Your task to perform on an android device: Open Google Chrome and click the shortcut for Amazon.com Image 0: 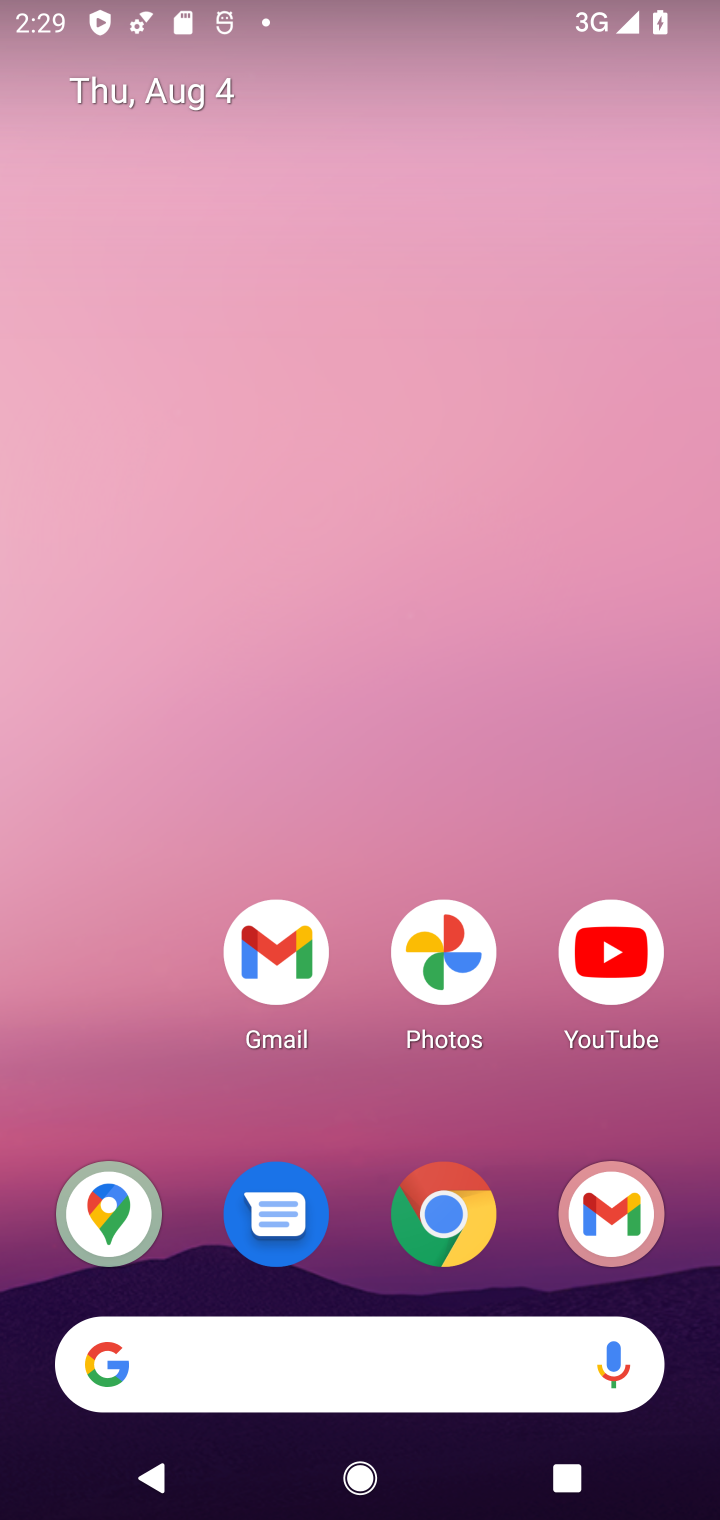
Step 0: drag from (76, 1056) to (136, 40)
Your task to perform on an android device: Open Google Chrome and click the shortcut for Amazon.com Image 1: 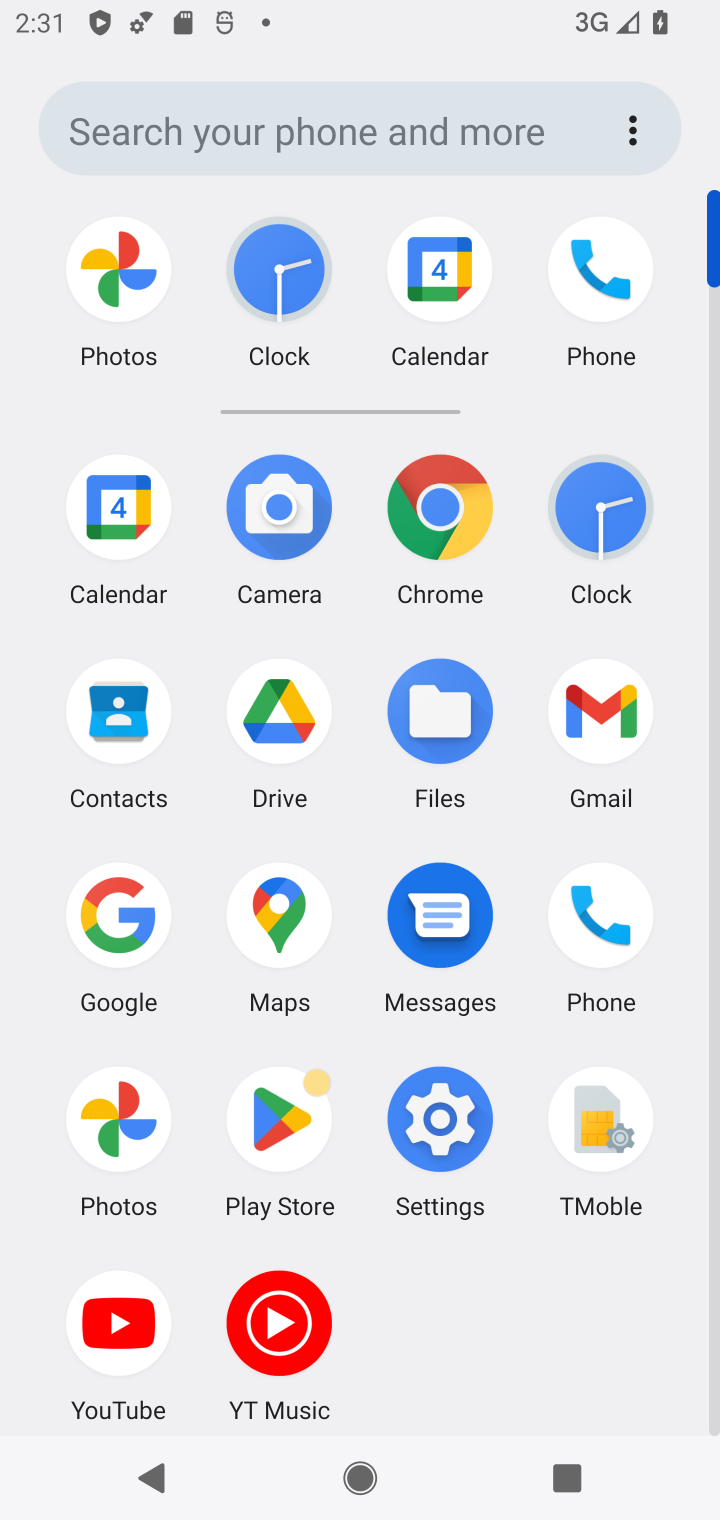
Step 1: click (431, 537)
Your task to perform on an android device: Open Google Chrome and click the shortcut for Amazon.com Image 2: 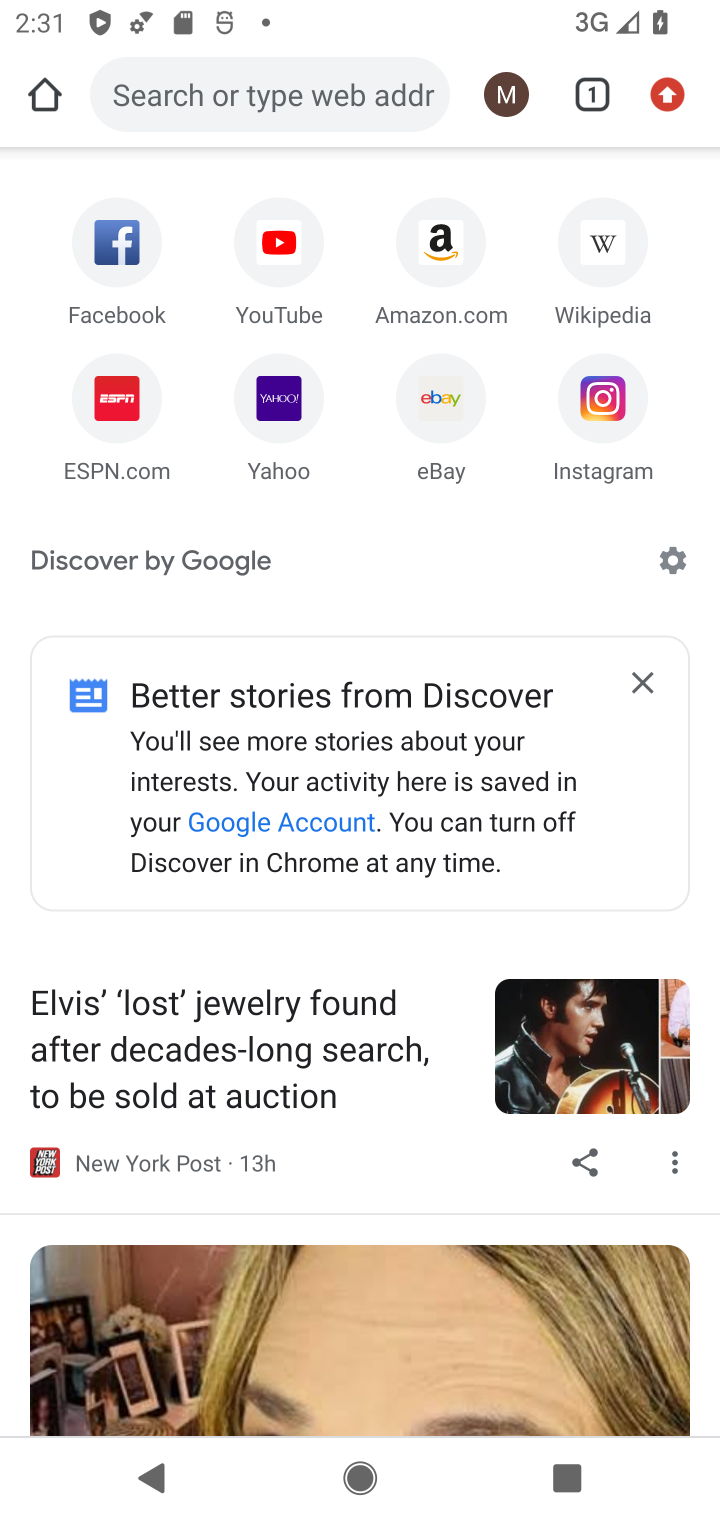
Step 2: click (429, 236)
Your task to perform on an android device: Open Google Chrome and click the shortcut for Amazon.com Image 3: 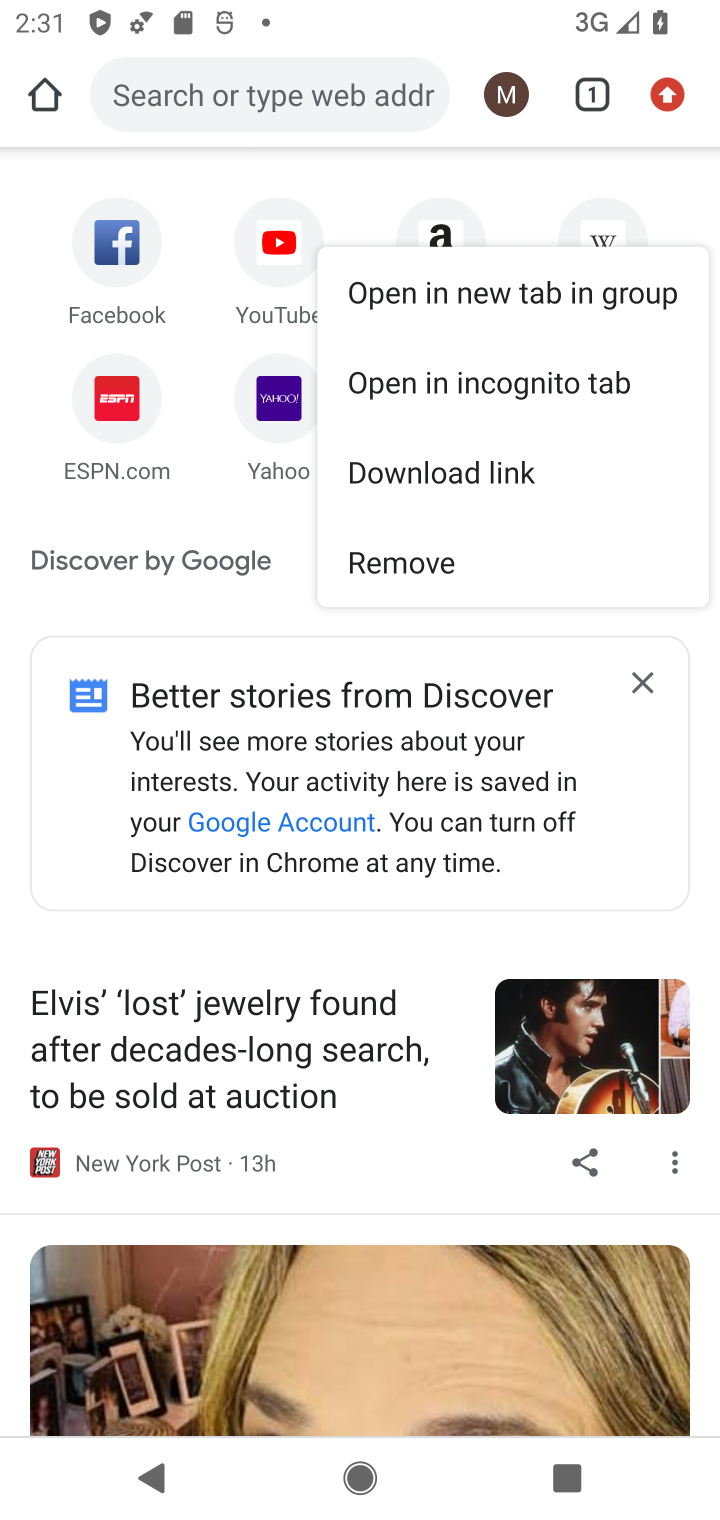
Step 3: click (431, 236)
Your task to perform on an android device: Open Google Chrome and click the shortcut for Amazon.com Image 4: 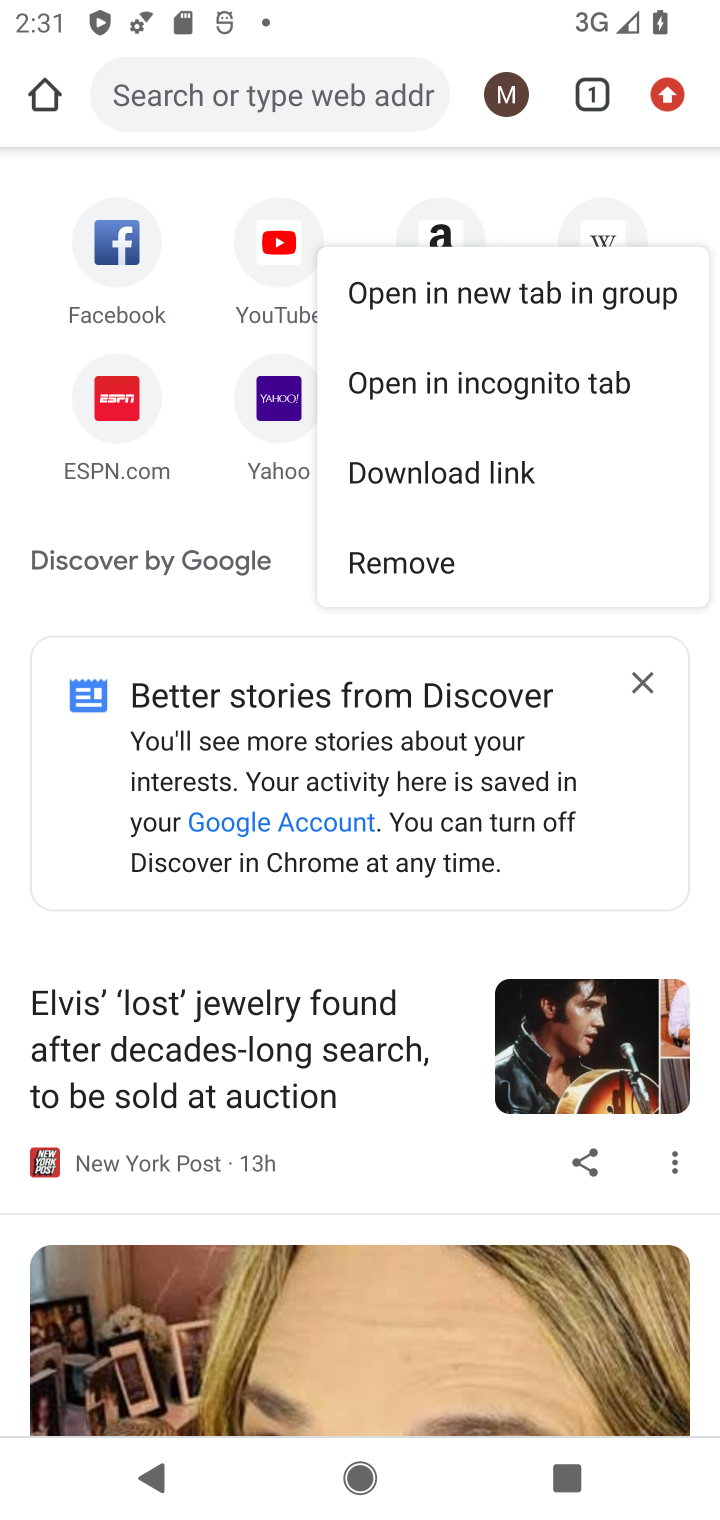
Step 4: click (435, 210)
Your task to perform on an android device: Open Google Chrome and click the shortcut for Amazon.com Image 5: 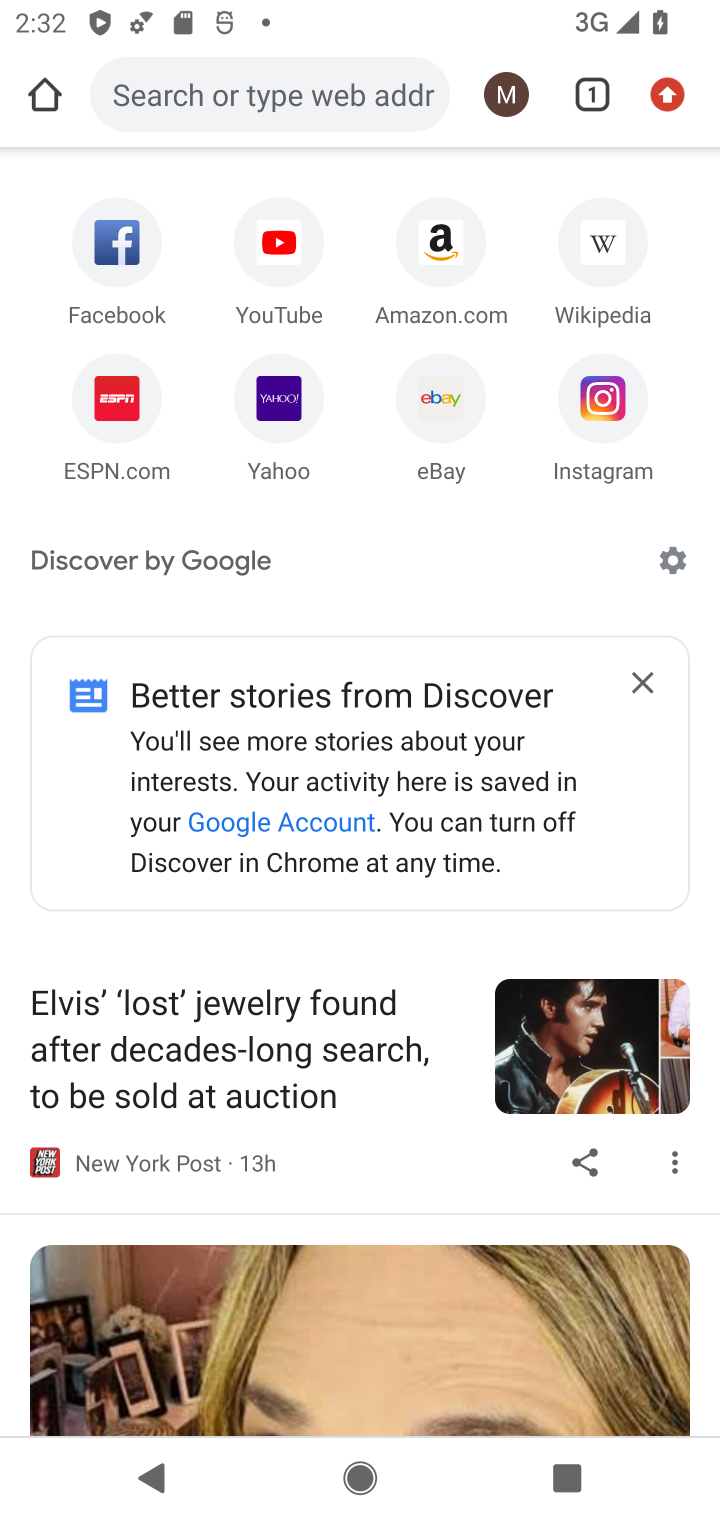
Step 5: click (412, 246)
Your task to perform on an android device: Open Google Chrome and click the shortcut for Amazon.com Image 6: 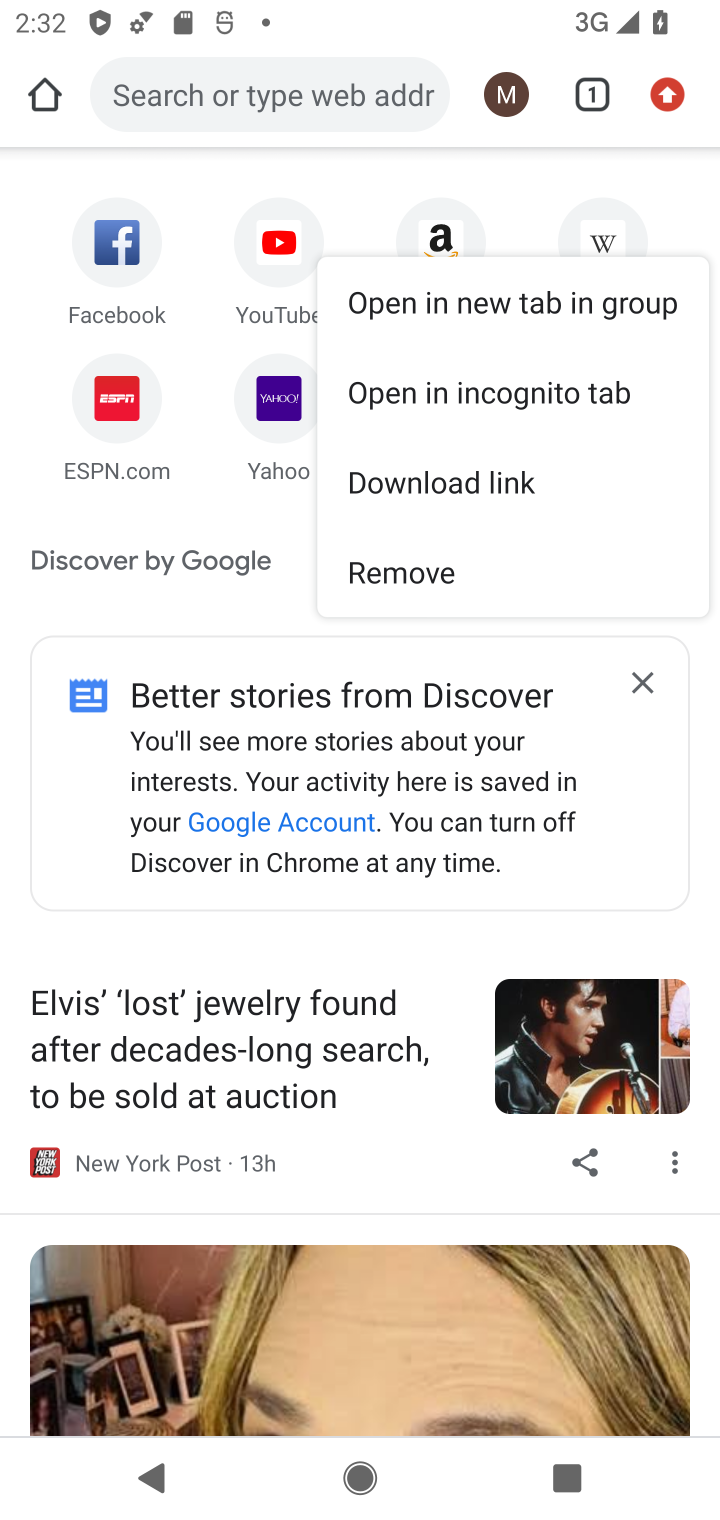
Step 6: click (442, 242)
Your task to perform on an android device: Open Google Chrome and click the shortcut for Amazon.com Image 7: 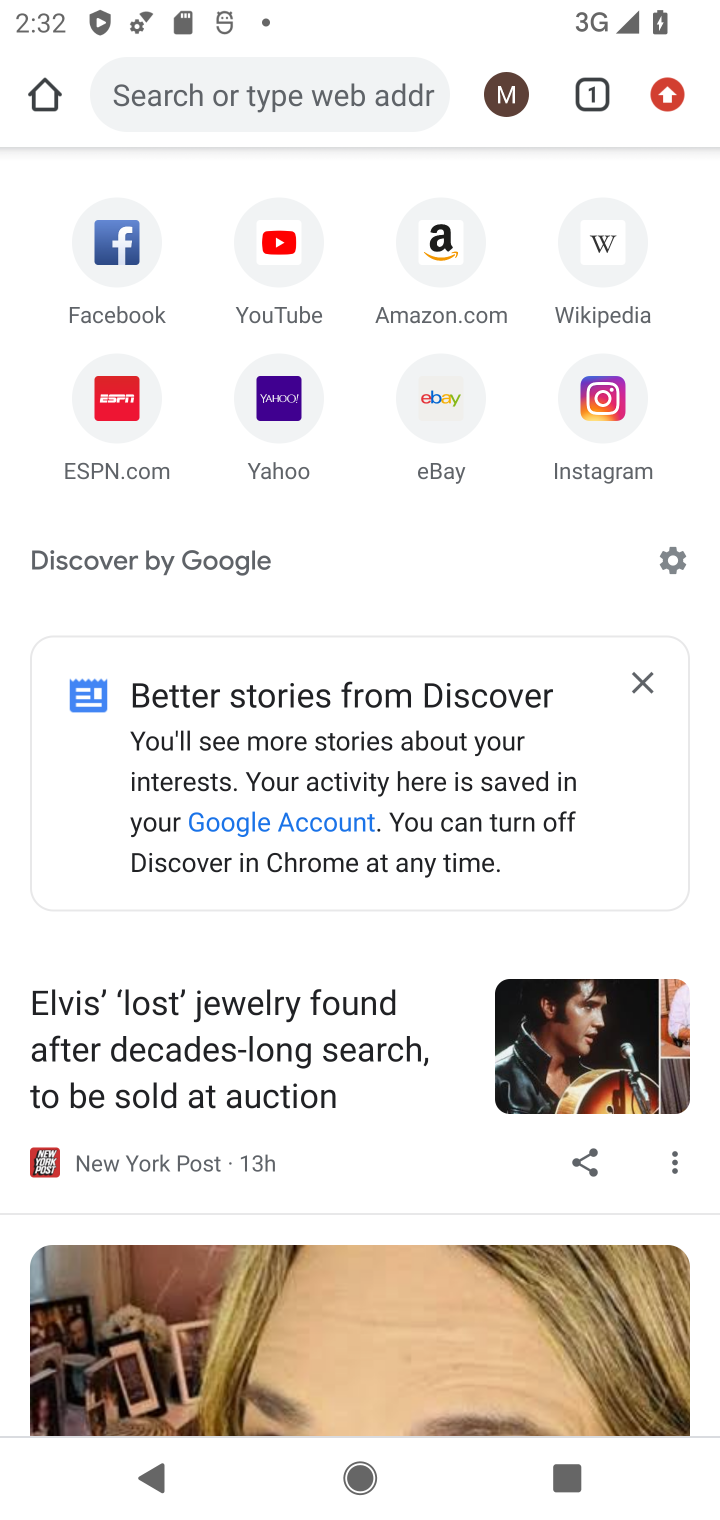
Step 7: click (442, 242)
Your task to perform on an android device: Open Google Chrome and click the shortcut for Amazon.com Image 8: 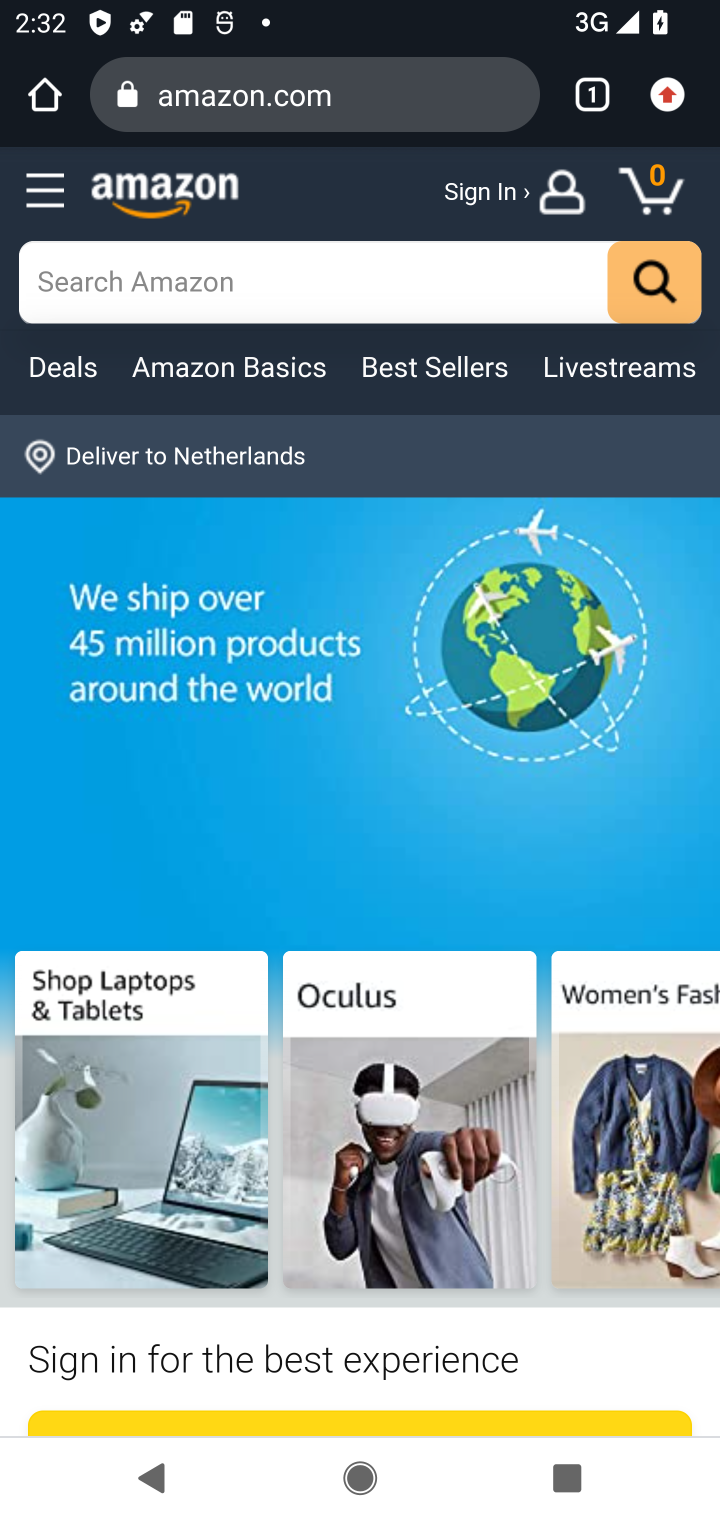
Step 8: task complete